Your task to perform on an android device: turn off data saver in the chrome app Image 0: 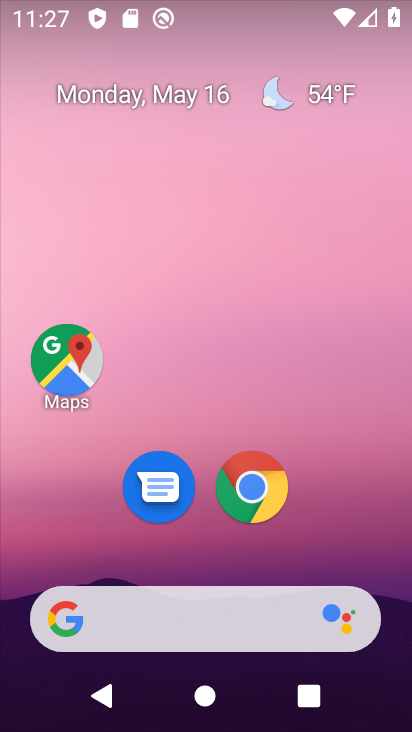
Step 0: click (261, 496)
Your task to perform on an android device: turn off data saver in the chrome app Image 1: 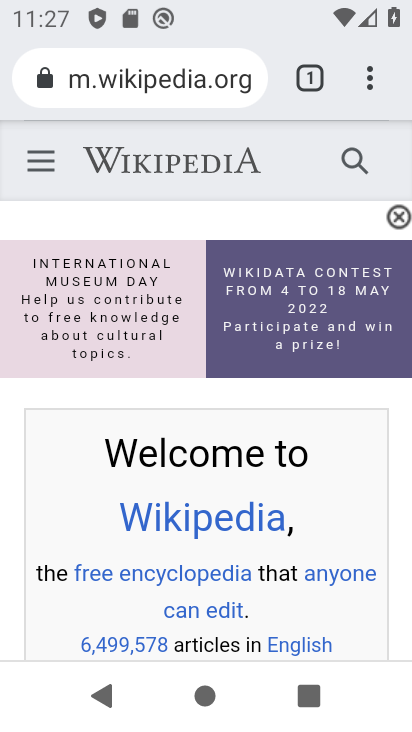
Step 1: click (366, 70)
Your task to perform on an android device: turn off data saver in the chrome app Image 2: 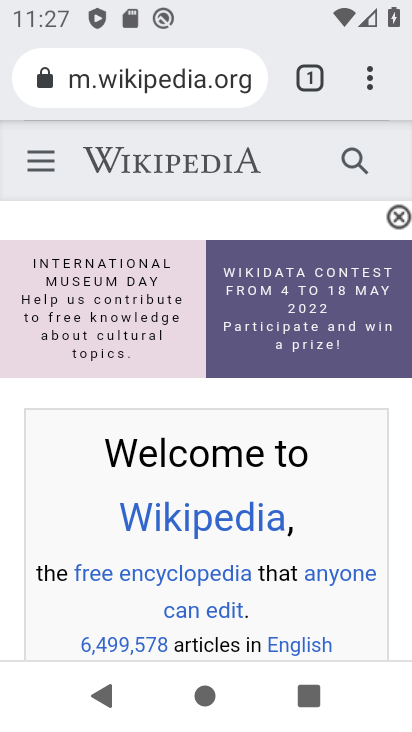
Step 2: drag from (371, 87) to (86, 553)
Your task to perform on an android device: turn off data saver in the chrome app Image 3: 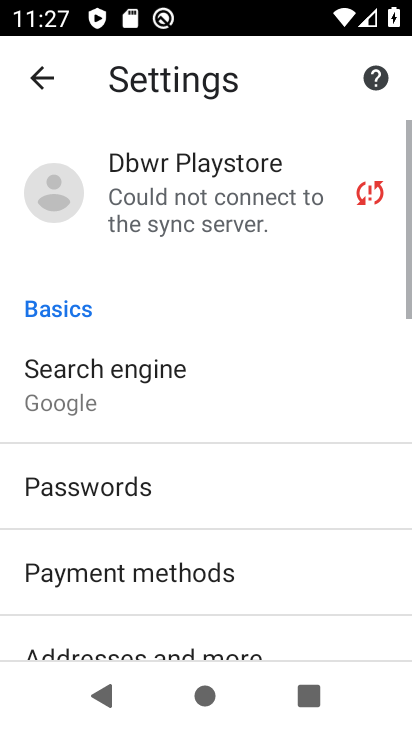
Step 3: drag from (164, 605) to (277, 128)
Your task to perform on an android device: turn off data saver in the chrome app Image 4: 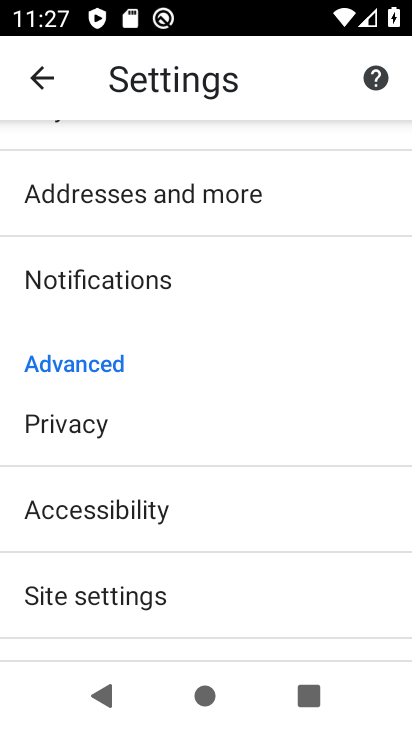
Step 4: drag from (107, 582) to (203, 150)
Your task to perform on an android device: turn off data saver in the chrome app Image 5: 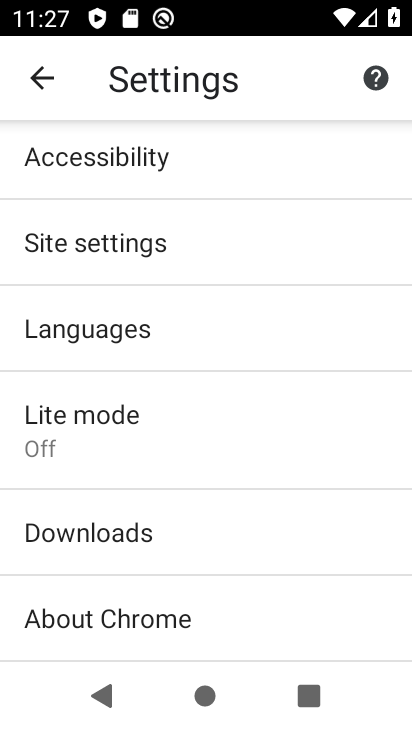
Step 5: click (109, 413)
Your task to perform on an android device: turn off data saver in the chrome app Image 6: 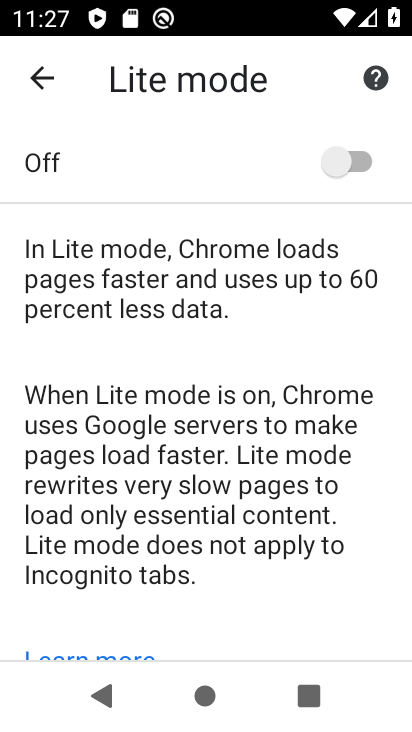
Step 6: task complete